Your task to perform on an android device: Open Chrome and go to the settings page Image 0: 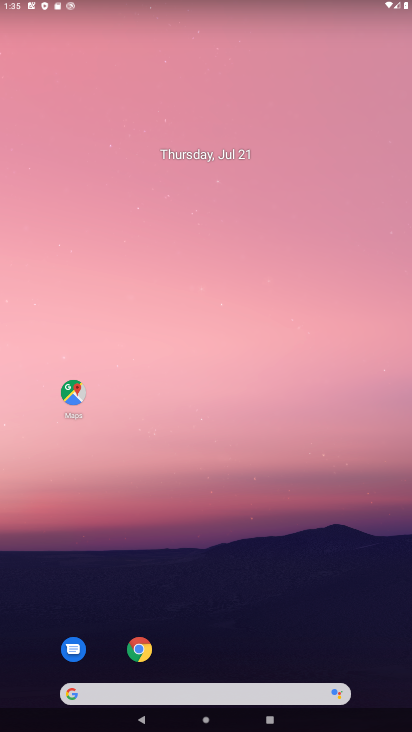
Step 0: click (144, 649)
Your task to perform on an android device: Open Chrome and go to the settings page Image 1: 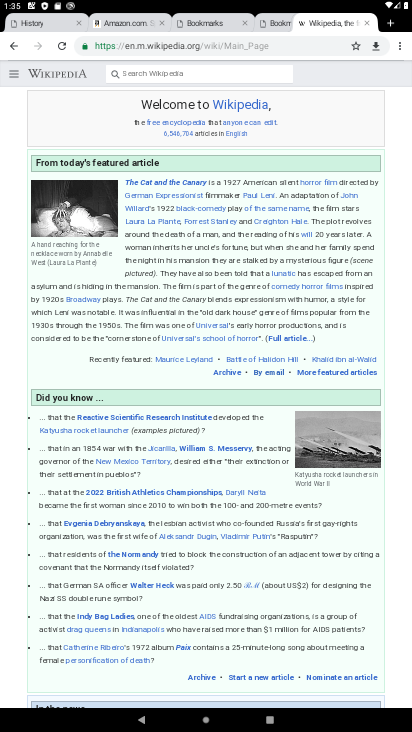
Step 1: click (398, 50)
Your task to perform on an android device: Open Chrome and go to the settings page Image 2: 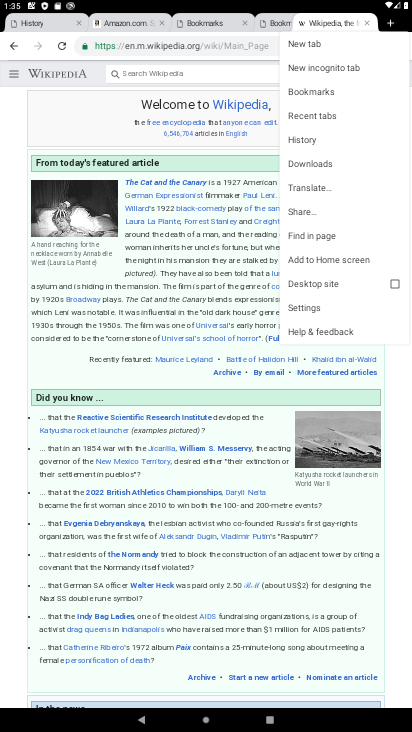
Step 2: click (303, 306)
Your task to perform on an android device: Open Chrome and go to the settings page Image 3: 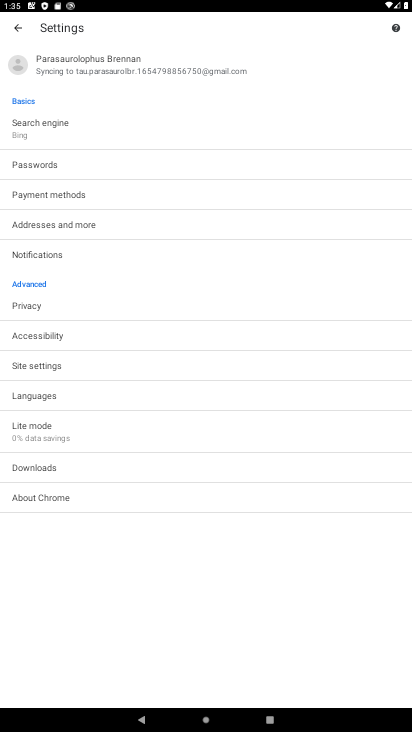
Step 3: task complete